Your task to perform on an android device: turn notification dots on Image 0: 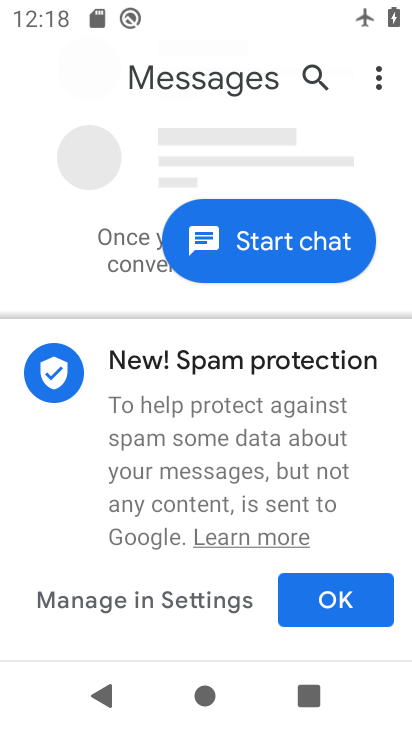
Step 0: press home button
Your task to perform on an android device: turn notification dots on Image 1: 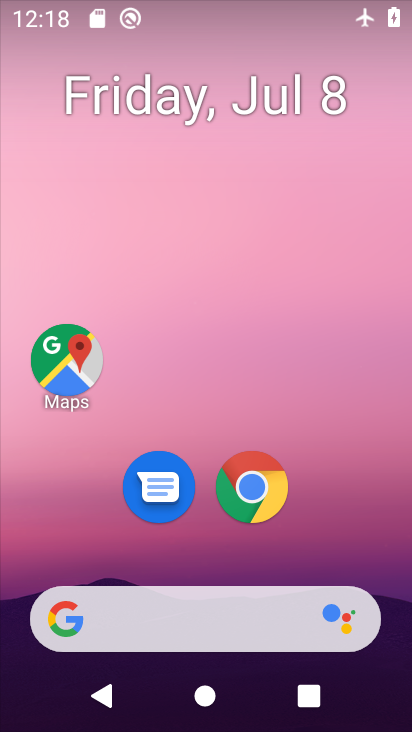
Step 1: drag from (377, 541) to (390, 170)
Your task to perform on an android device: turn notification dots on Image 2: 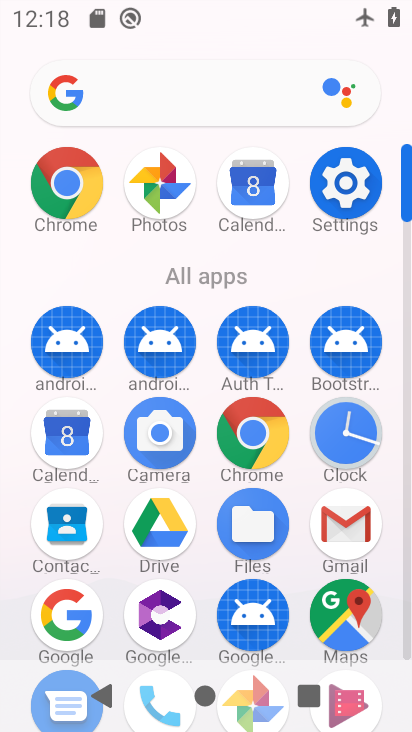
Step 2: click (342, 197)
Your task to perform on an android device: turn notification dots on Image 3: 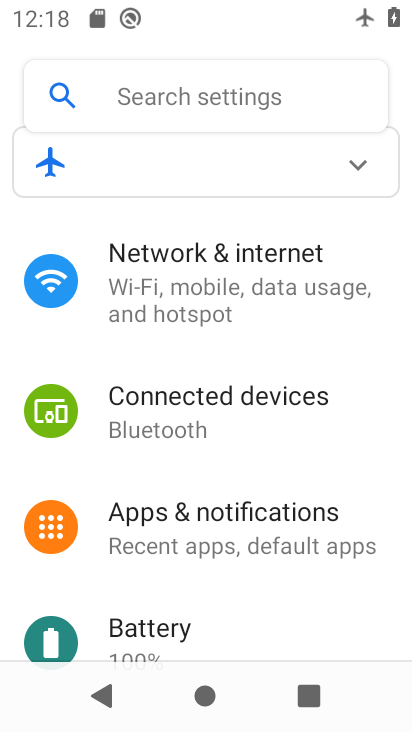
Step 3: drag from (370, 564) to (374, 420)
Your task to perform on an android device: turn notification dots on Image 4: 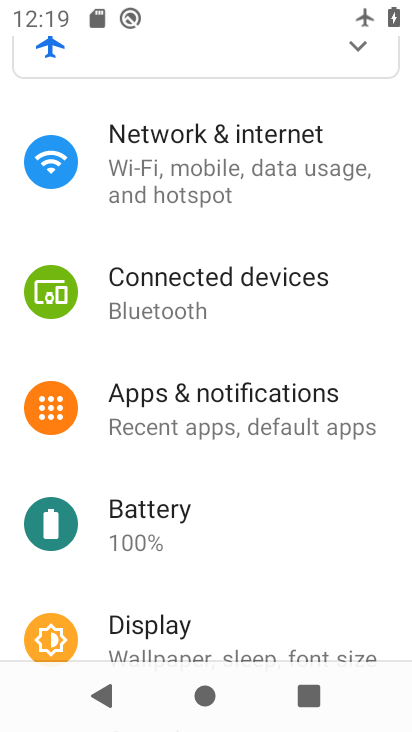
Step 4: drag from (375, 553) to (378, 471)
Your task to perform on an android device: turn notification dots on Image 5: 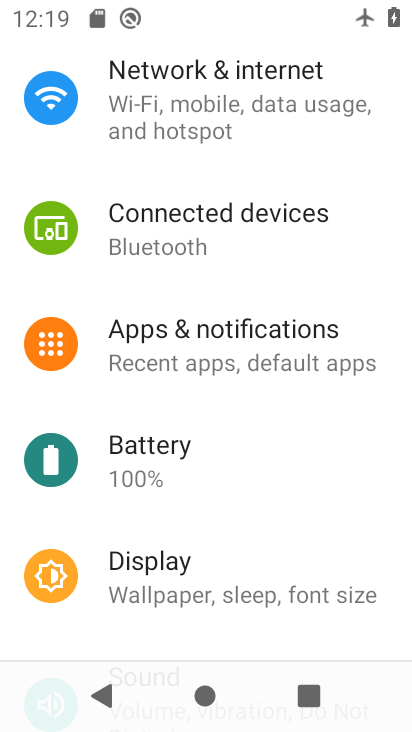
Step 5: drag from (370, 617) to (372, 486)
Your task to perform on an android device: turn notification dots on Image 6: 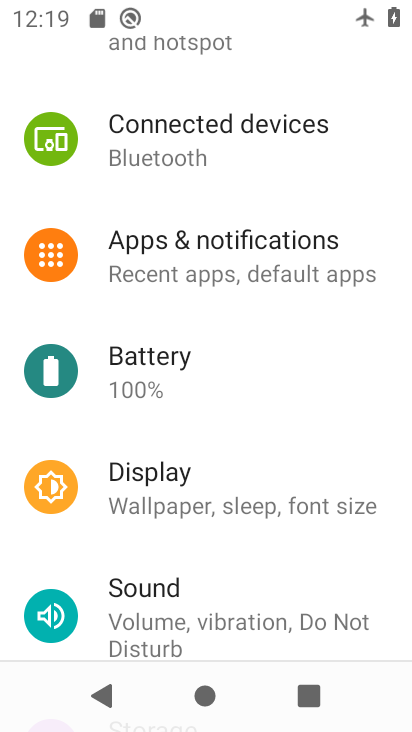
Step 6: drag from (385, 562) to (370, 485)
Your task to perform on an android device: turn notification dots on Image 7: 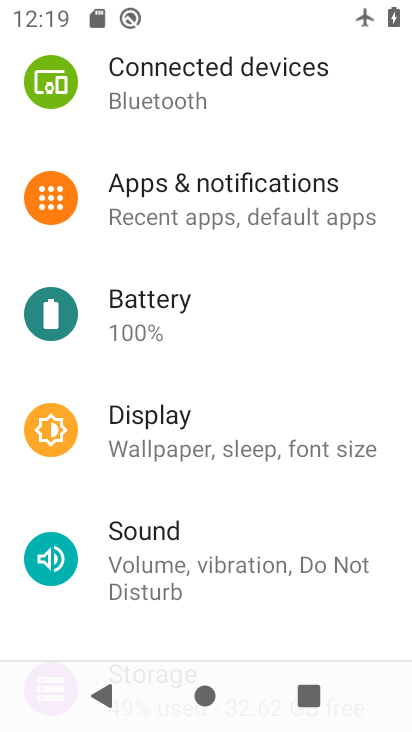
Step 7: click (324, 229)
Your task to perform on an android device: turn notification dots on Image 8: 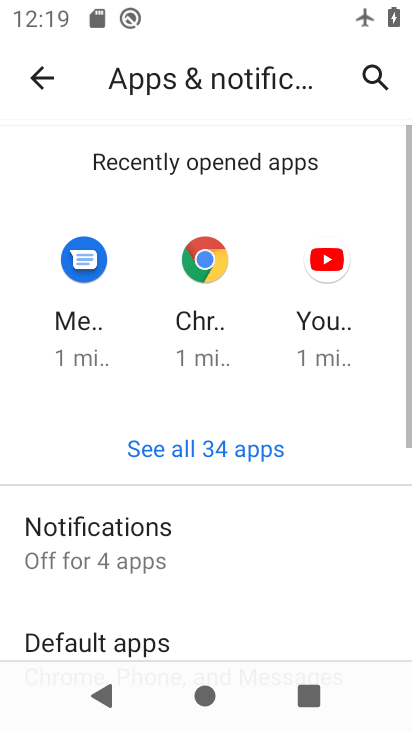
Step 8: drag from (330, 483) to (334, 388)
Your task to perform on an android device: turn notification dots on Image 9: 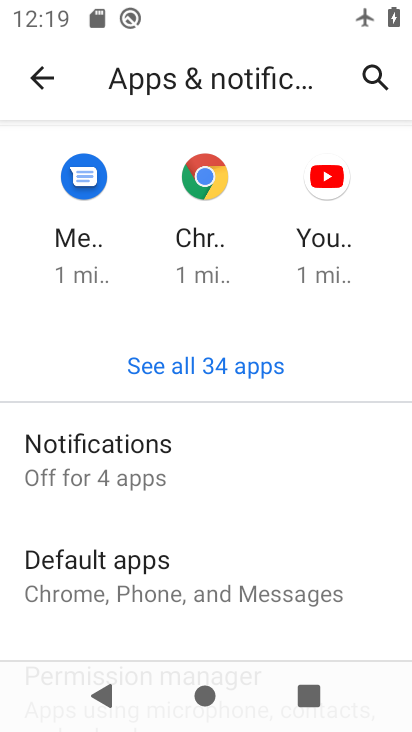
Step 9: drag from (339, 452) to (349, 371)
Your task to perform on an android device: turn notification dots on Image 10: 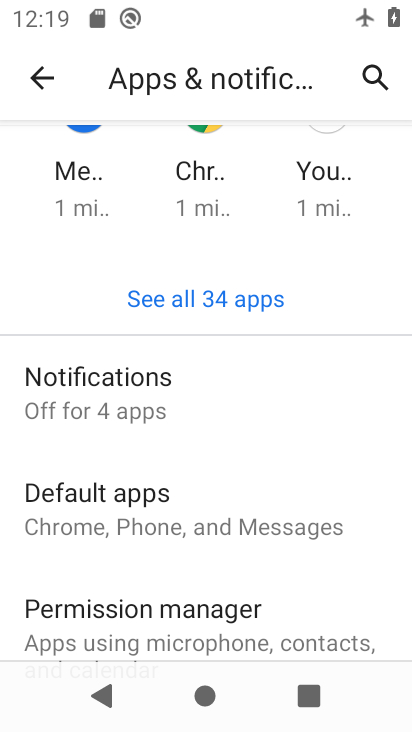
Step 10: click (311, 416)
Your task to perform on an android device: turn notification dots on Image 11: 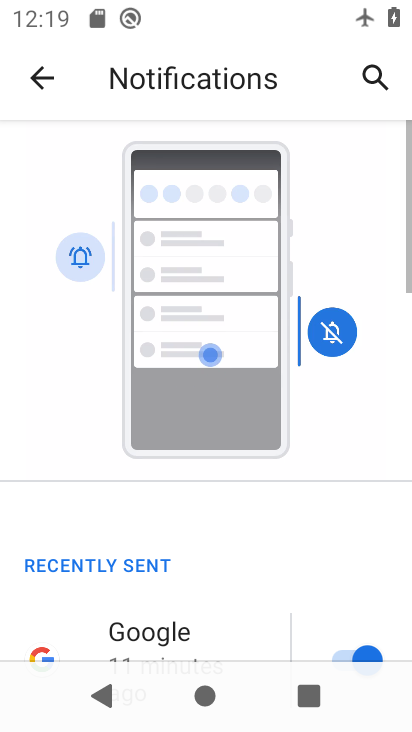
Step 11: drag from (326, 447) to (304, 359)
Your task to perform on an android device: turn notification dots on Image 12: 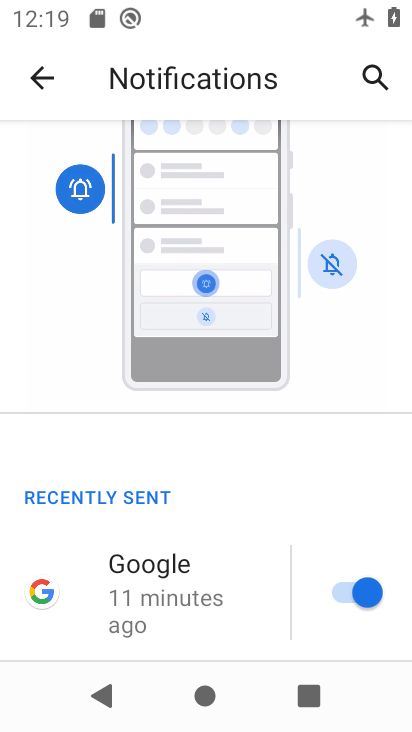
Step 12: drag from (276, 446) to (291, 367)
Your task to perform on an android device: turn notification dots on Image 13: 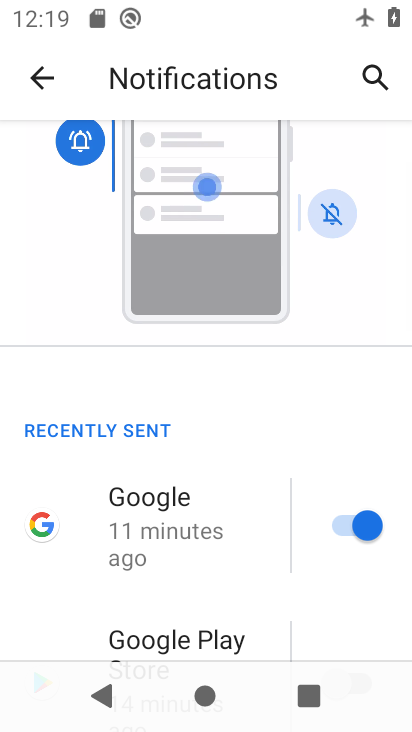
Step 13: drag from (259, 486) to (257, 412)
Your task to perform on an android device: turn notification dots on Image 14: 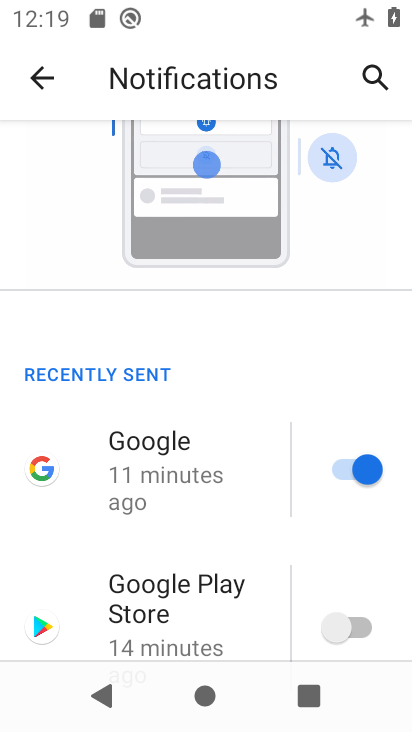
Step 14: drag from (251, 508) to (256, 437)
Your task to perform on an android device: turn notification dots on Image 15: 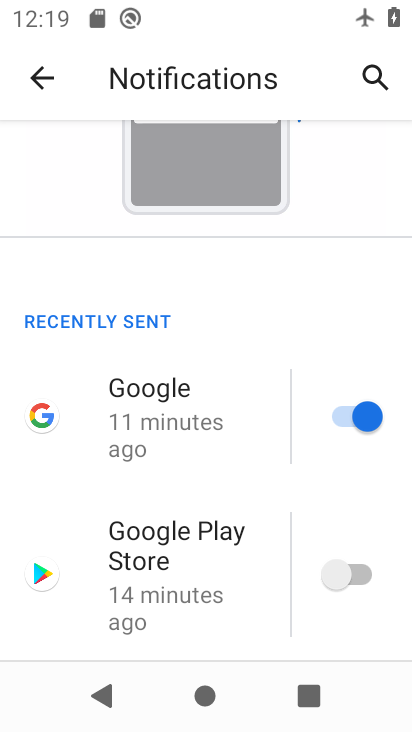
Step 15: drag from (257, 519) to (254, 439)
Your task to perform on an android device: turn notification dots on Image 16: 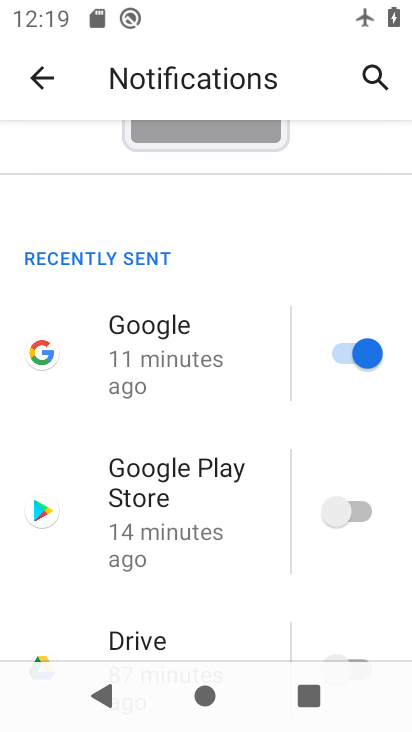
Step 16: drag from (255, 530) to (270, 409)
Your task to perform on an android device: turn notification dots on Image 17: 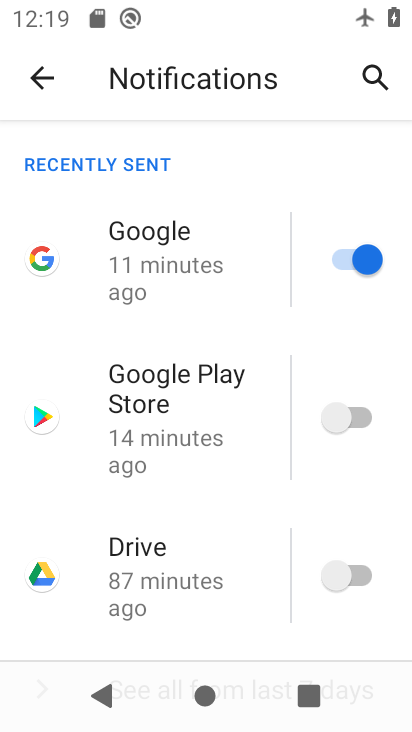
Step 17: drag from (251, 540) to (252, 424)
Your task to perform on an android device: turn notification dots on Image 18: 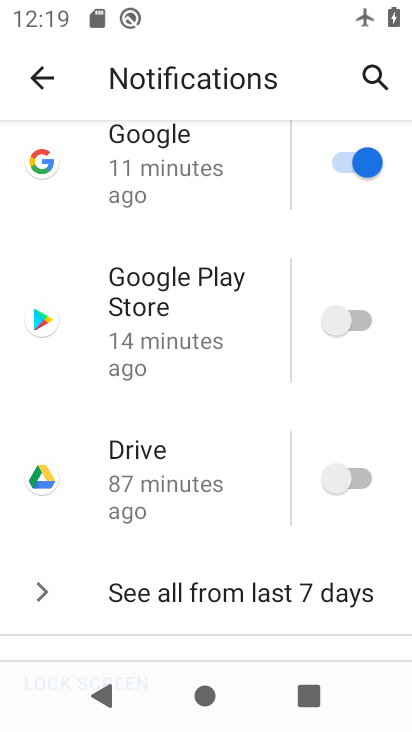
Step 18: drag from (270, 597) to (283, 411)
Your task to perform on an android device: turn notification dots on Image 19: 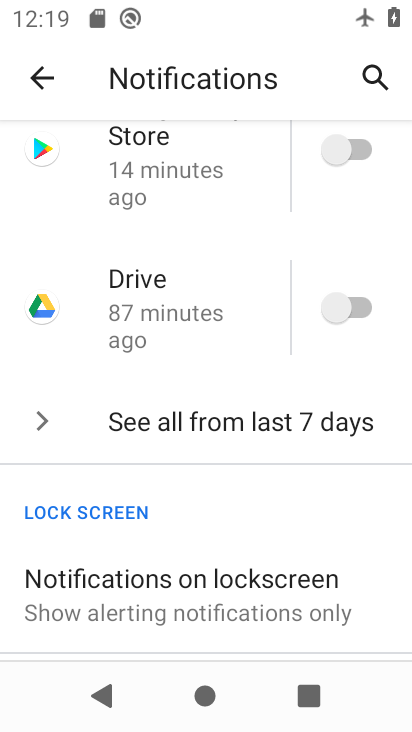
Step 19: drag from (371, 630) to (380, 471)
Your task to perform on an android device: turn notification dots on Image 20: 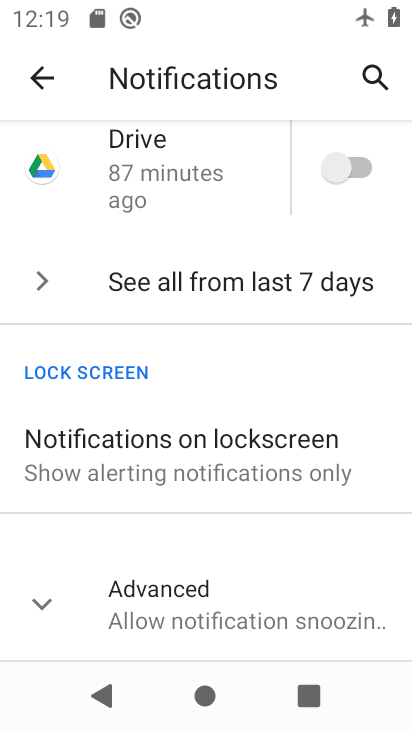
Step 20: click (242, 599)
Your task to perform on an android device: turn notification dots on Image 21: 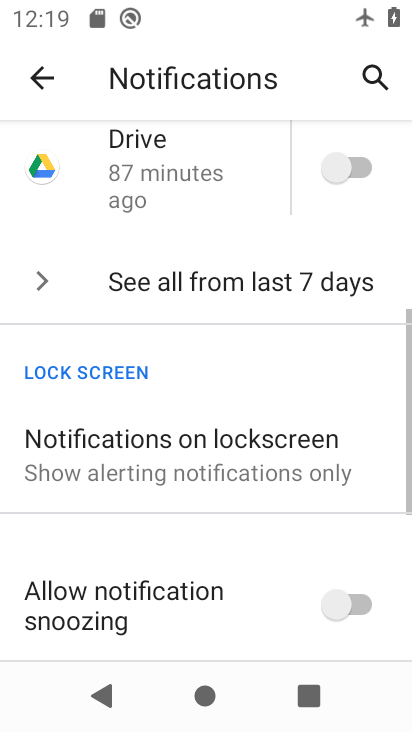
Step 21: task complete